Your task to perform on an android device: install app "eBay: The shopping marketplace" Image 0: 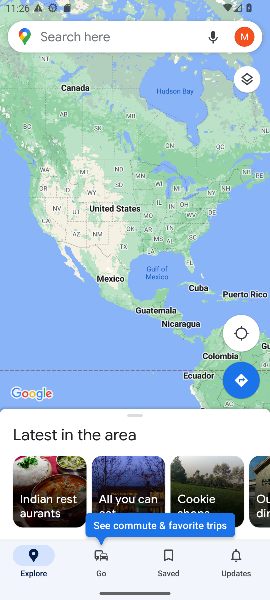
Step 0: press home button
Your task to perform on an android device: install app "eBay: The shopping marketplace" Image 1: 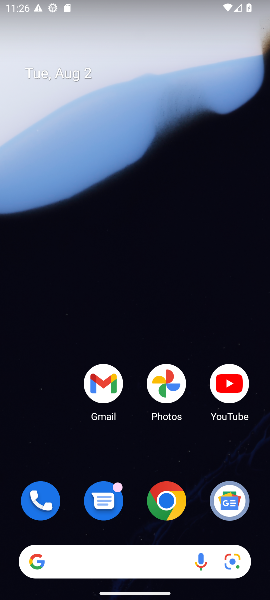
Step 1: drag from (208, 437) to (130, 133)
Your task to perform on an android device: install app "eBay: The shopping marketplace" Image 2: 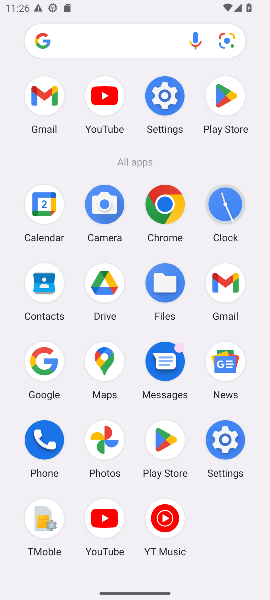
Step 2: click (232, 107)
Your task to perform on an android device: install app "eBay: The shopping marketplace" Image 3: 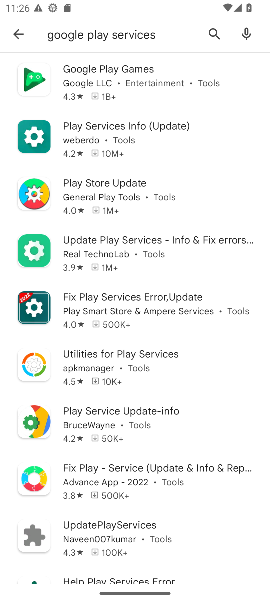
Step 3: click (212, 29)
Your task to perform on an android device: install app "eBay: The shopping marketplace" Image 4: 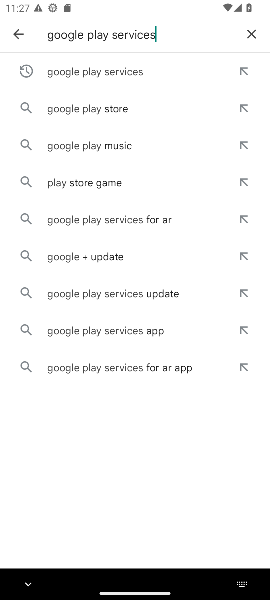
Step 4: click (250, 30)
Your task to perform on an android device: install app "eBay: The shopping marketplace" Image 5: 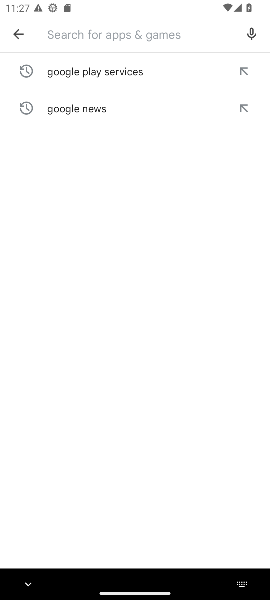
Step 5: click (158, 34)
Your task to perform on an android device: install app "eBay: The shopping marketplace" Image 6: 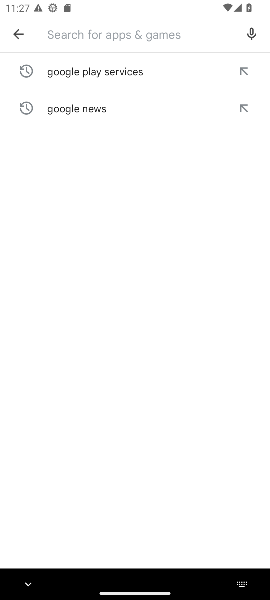
Step 6: type "ebay: The shopping"
Your task to perform on an android device: install app "eBay: The shopping marketplace" Image 7: 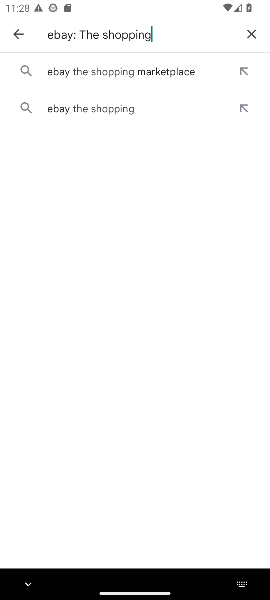
Step 7: click (137, 70)
Your task to perform on an android device: install app "eBay: The shopping marketplace" Image 8: 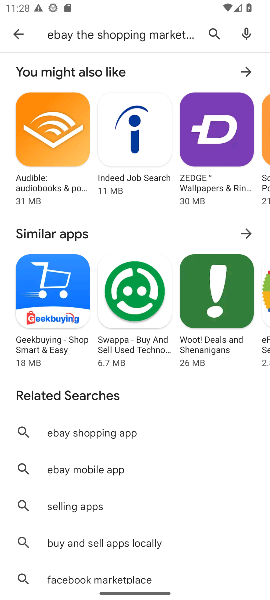
Step 8: task complete